Your task to perform on an android device: Open Google Maps Image 0: 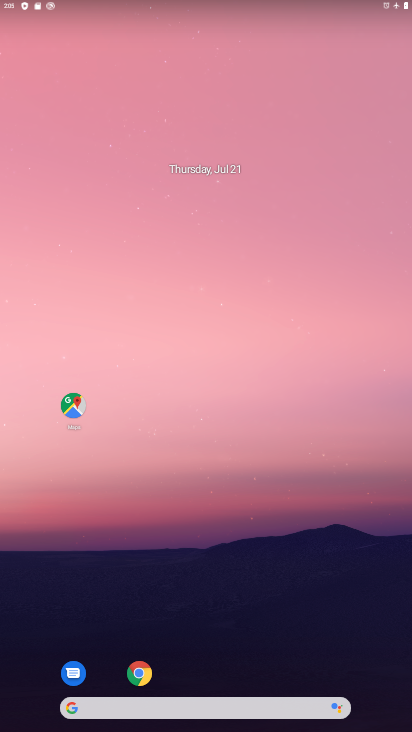
Step 0: click (69, 412)
Your task to perform on an android device: Open Google Maps Image 1: 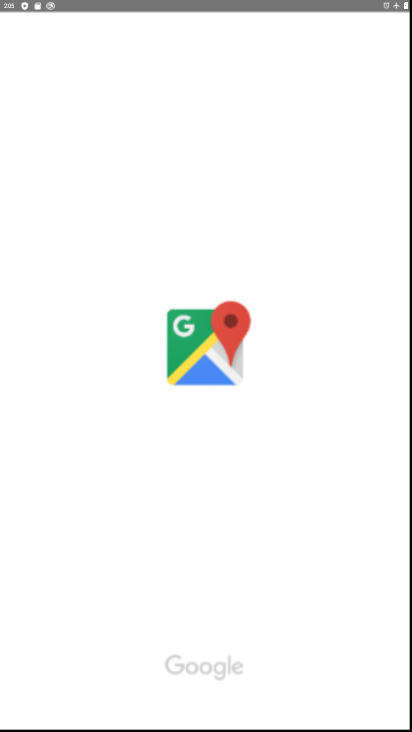
Step 1: task complete